Your task to perform on an android device: Find coffee shops on Maps Image 0: 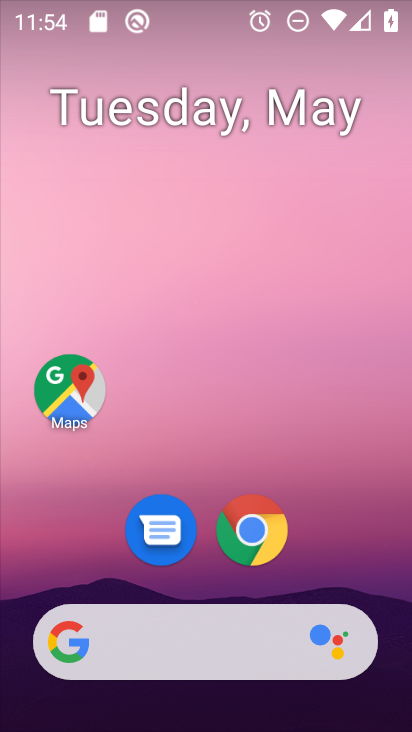
Step 0: drag from (342, 526) to (349, 102)
Your task to perform on an android device: Find coffee shops on Maps Image 1: 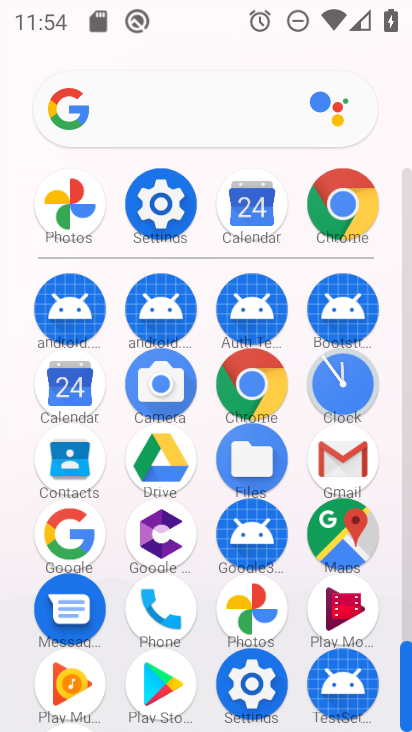
Step 1: click (327, 540)
Your task to perform on an android device: Find coffee shops on Maps Image 2: 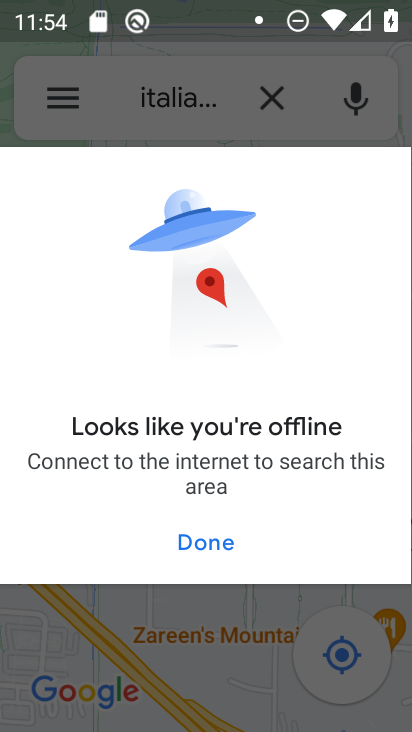
Step 2: click (225, 541)
Your task to perform on an android device: Find coffee shops on Maps Image 3: 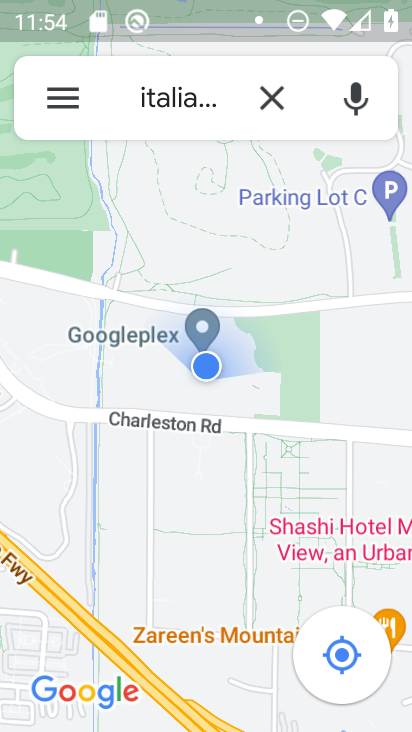
Step 3: click (279, 81)
Your task to perform on an android device: Find coffee shops on Maps Image 4: 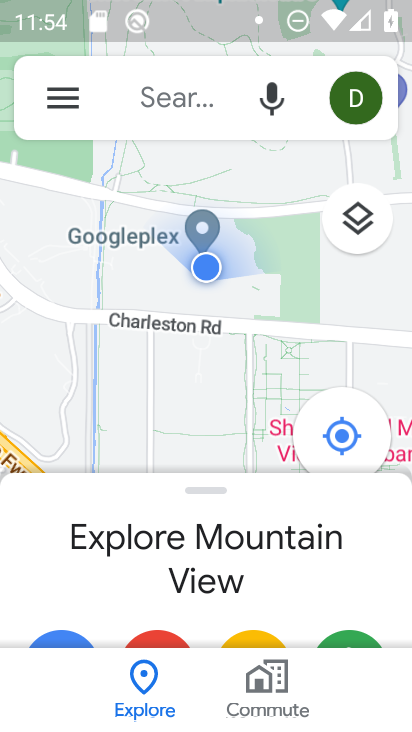
Step 4: click (203, 91)
Your task to perform on an android device: Find coffee shops on Maps Image 5: 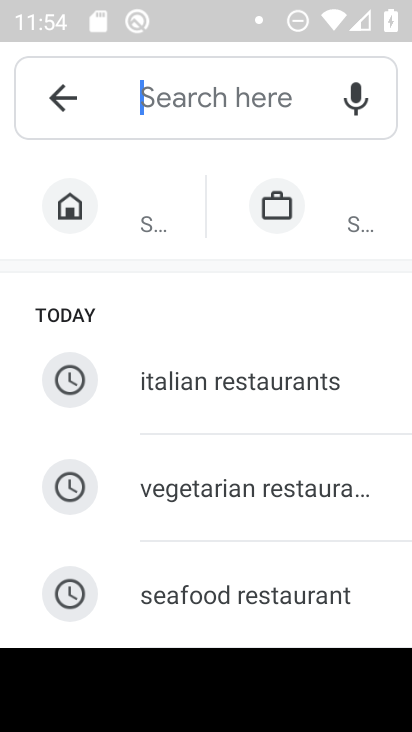
Step 5: type "coffee shops"
Your task to perform on an android device: Find coffee shops on Maps Image 6: 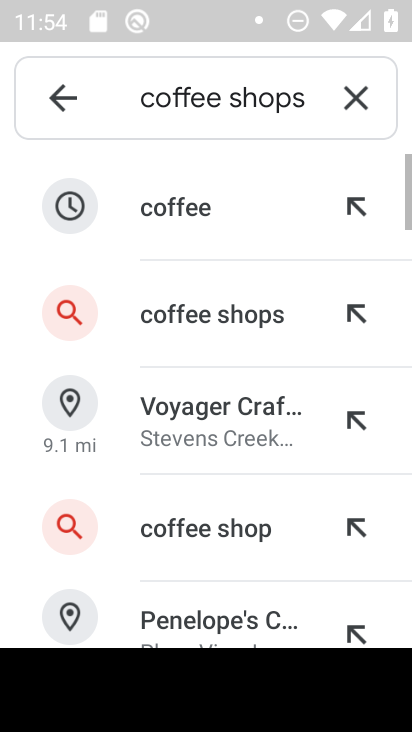
Step 6: click (209, 319)
Your task to perform on an android device: Find coffee shops on Maps Image 7: 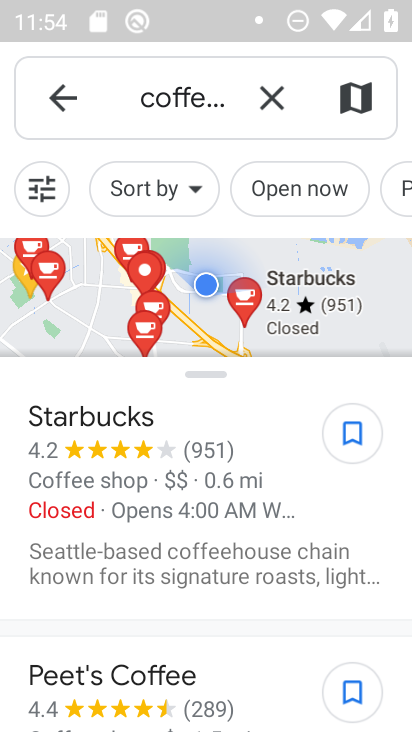
Step 7: task complete